Your task to perform on an android device: change the clock display to show seconds Image 0: 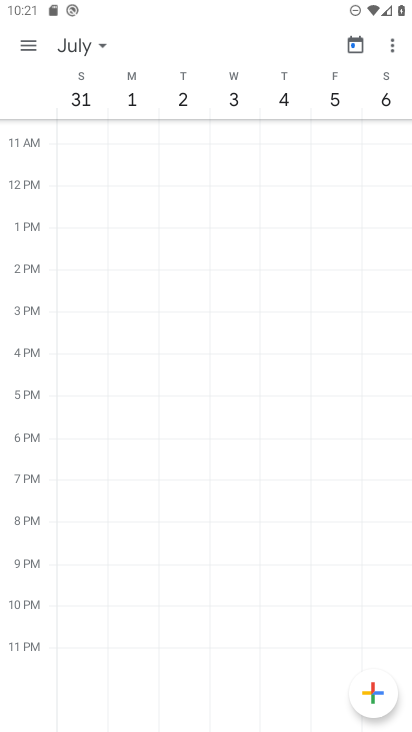
Step 0: press home button
Your task to perform on an android device: change the clock display to show seconds Image 1: 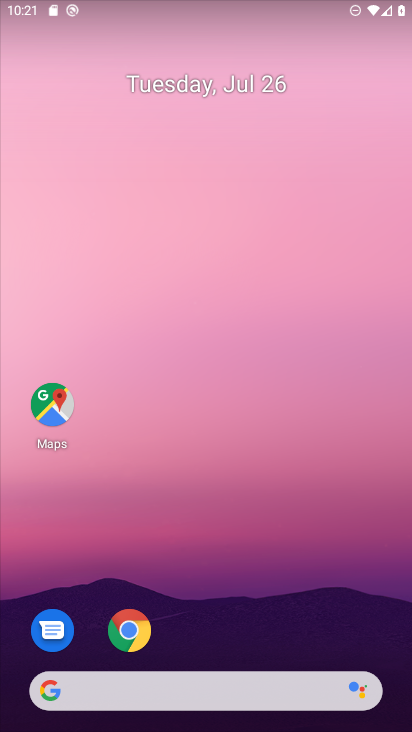
Step 1: drag from (348, 642) to (294, 155)
Your task to perform on an android device: change the clock display to show seconds Image 2: 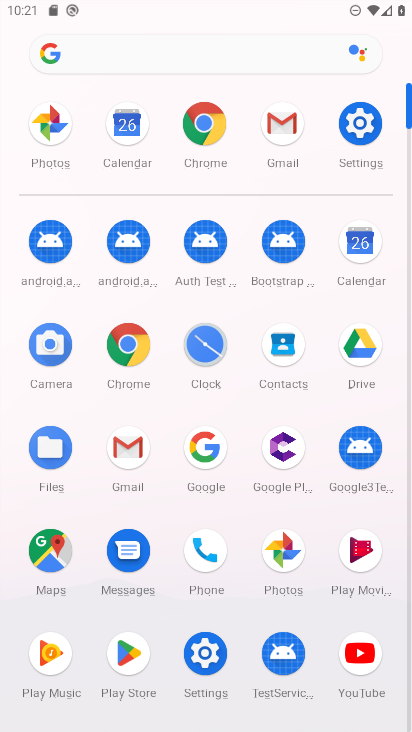
Step 2: click (204, 346)
Your task to perform on an android device: change the clock display to show seconds Image 3: 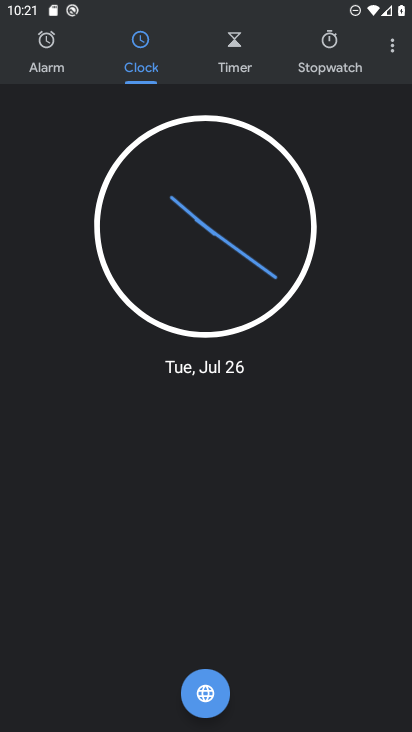
Step 3: click (392, 54)
Your task to perform on an android device: change the clock display to show seconds Image 4: 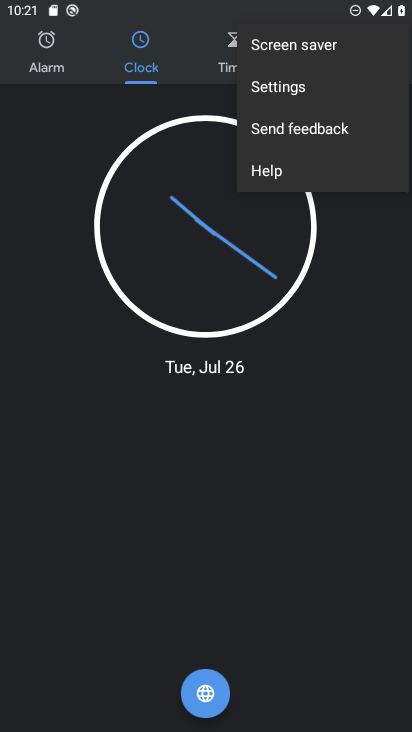
Step 4: click (277, 88)
Your task to perform on an android device: change the clock display to show seconds Image 5: 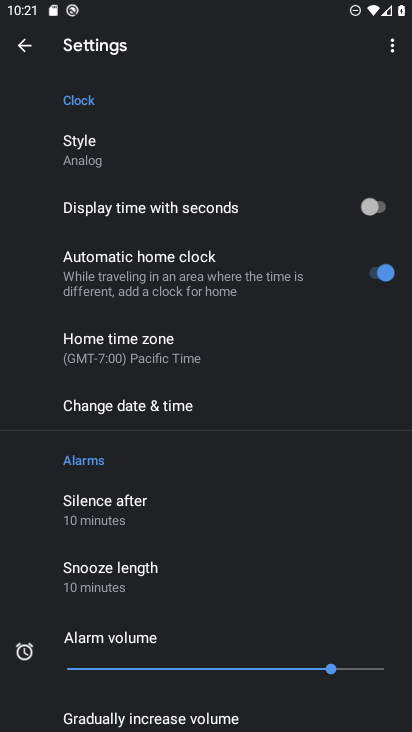
Step 5: click (378, 206)
Your task to perform on an android device: change the clock display to show seconds Image 6: 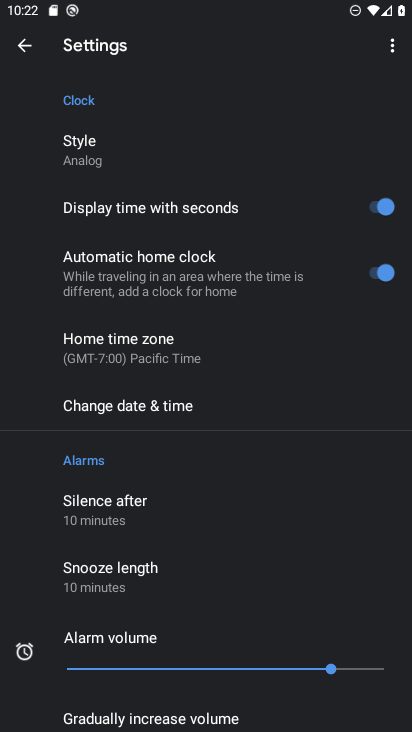
Step 6: task complete